Your task to perform on an android device: open app "Messenger Lite" (install if not already installed) Image 0: 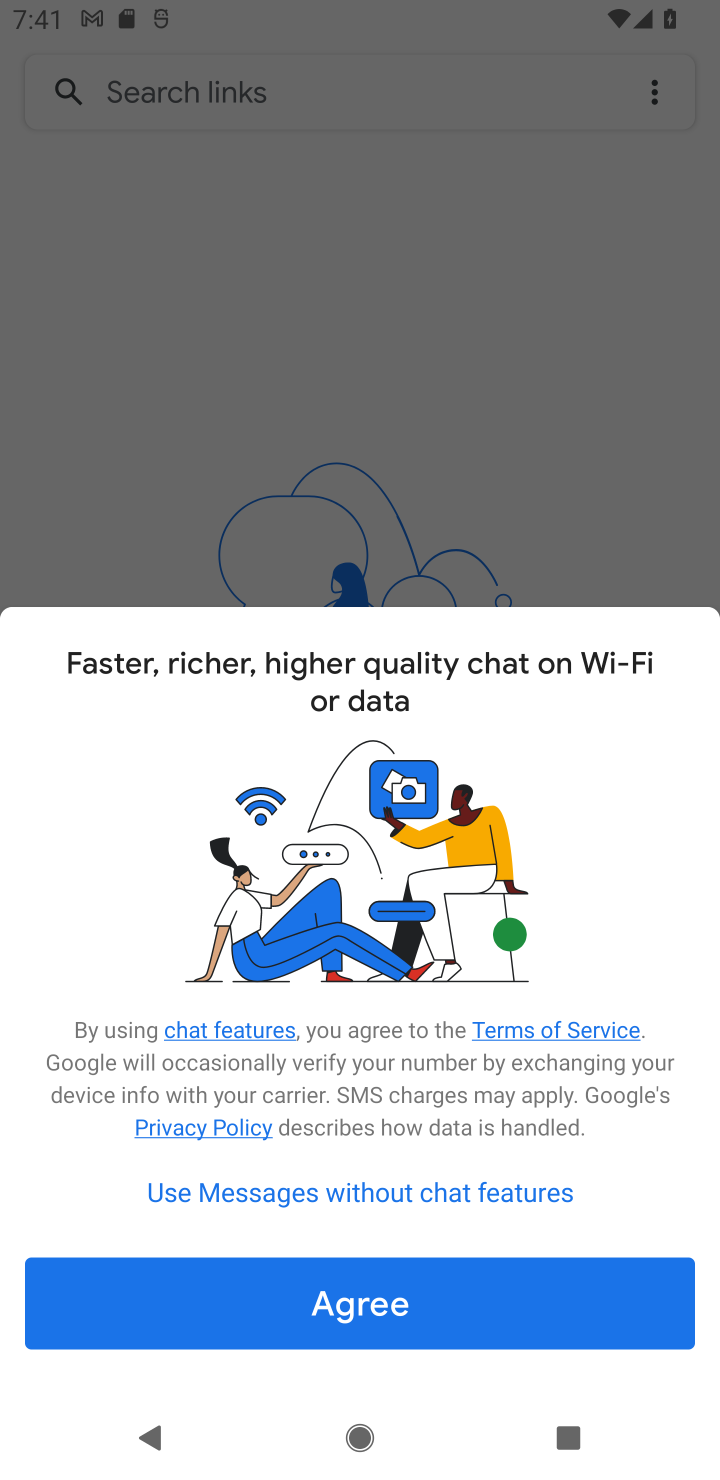
Step 0: press home button
Your task to perform on an android device: open app "Messenger Lite" (install if not already installed) Image 1: 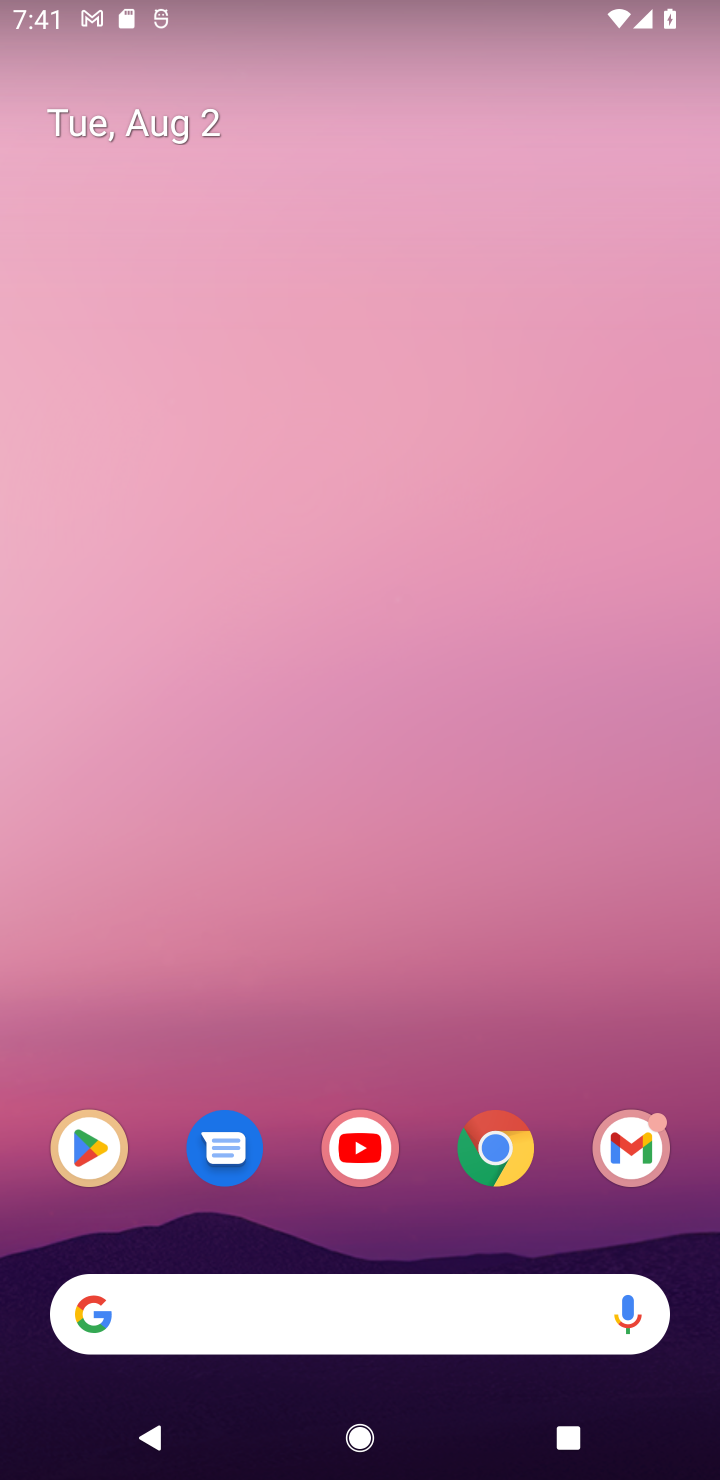
Step 1: drag from (554, 1181) to (333, 177)
Your task to perform on an android device: open app "Messenger Lite" (install if not already installed) Image 2: 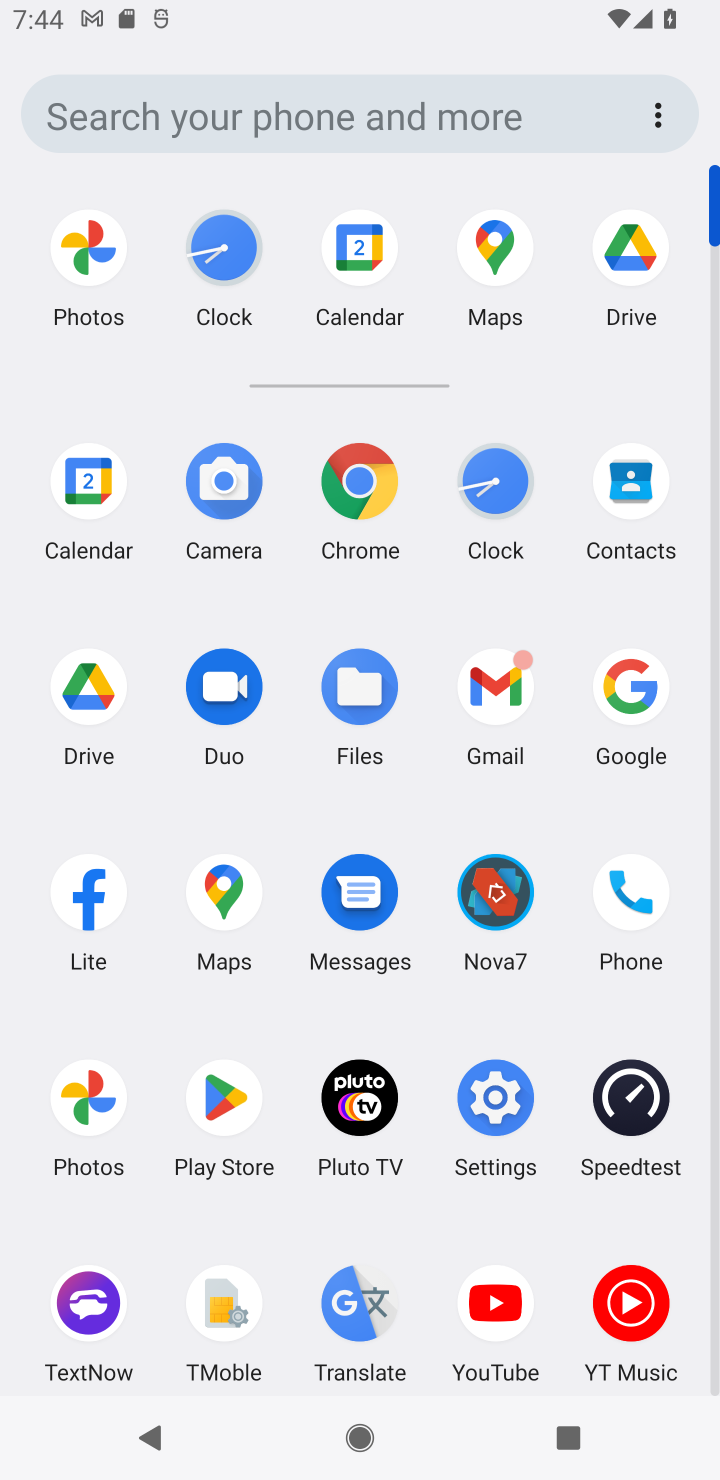
Step 2: click (209, 1130)
Your task to perform on an android device: open app "Messenger Lite" (install if not already installed) Image 3: 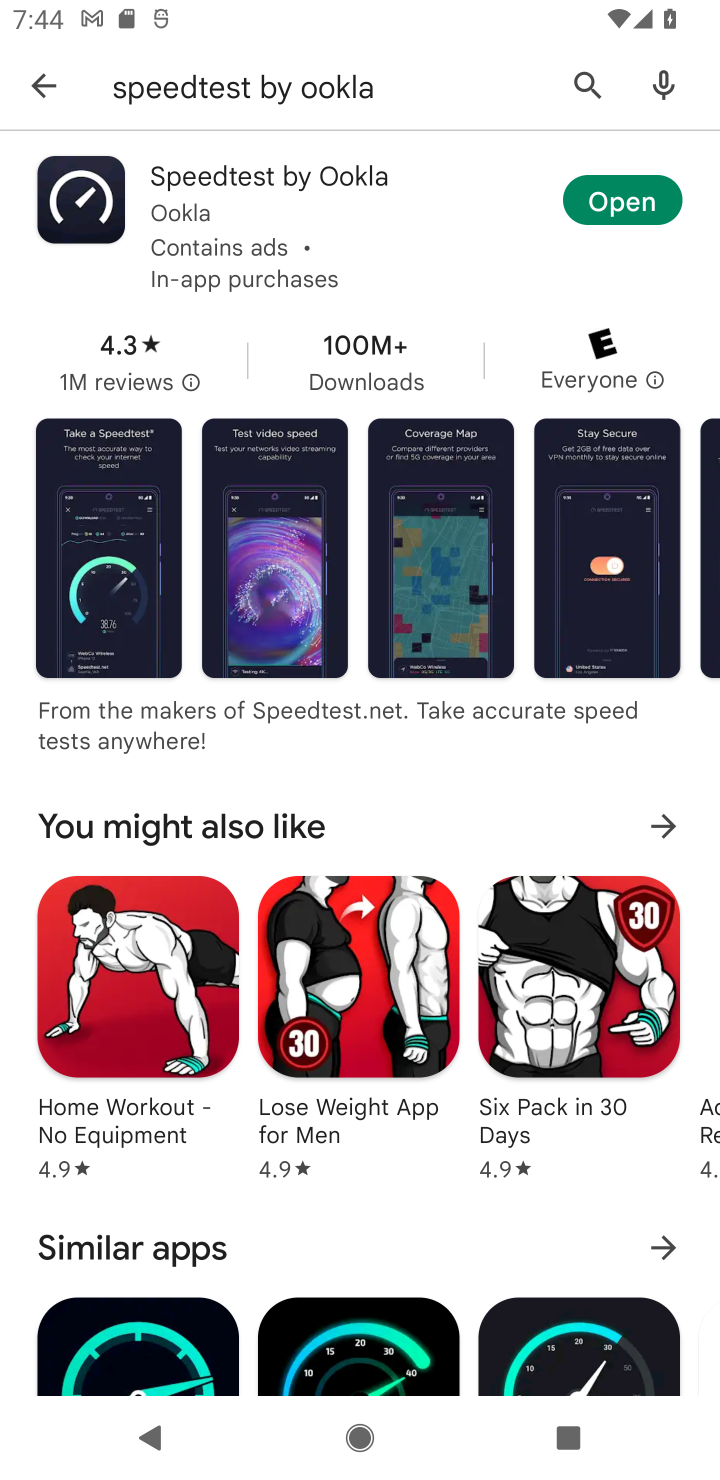
Step 3: press back button
Your task to perform on an android device: open app "Messenger Lite" (install if not already installed) Image 4: 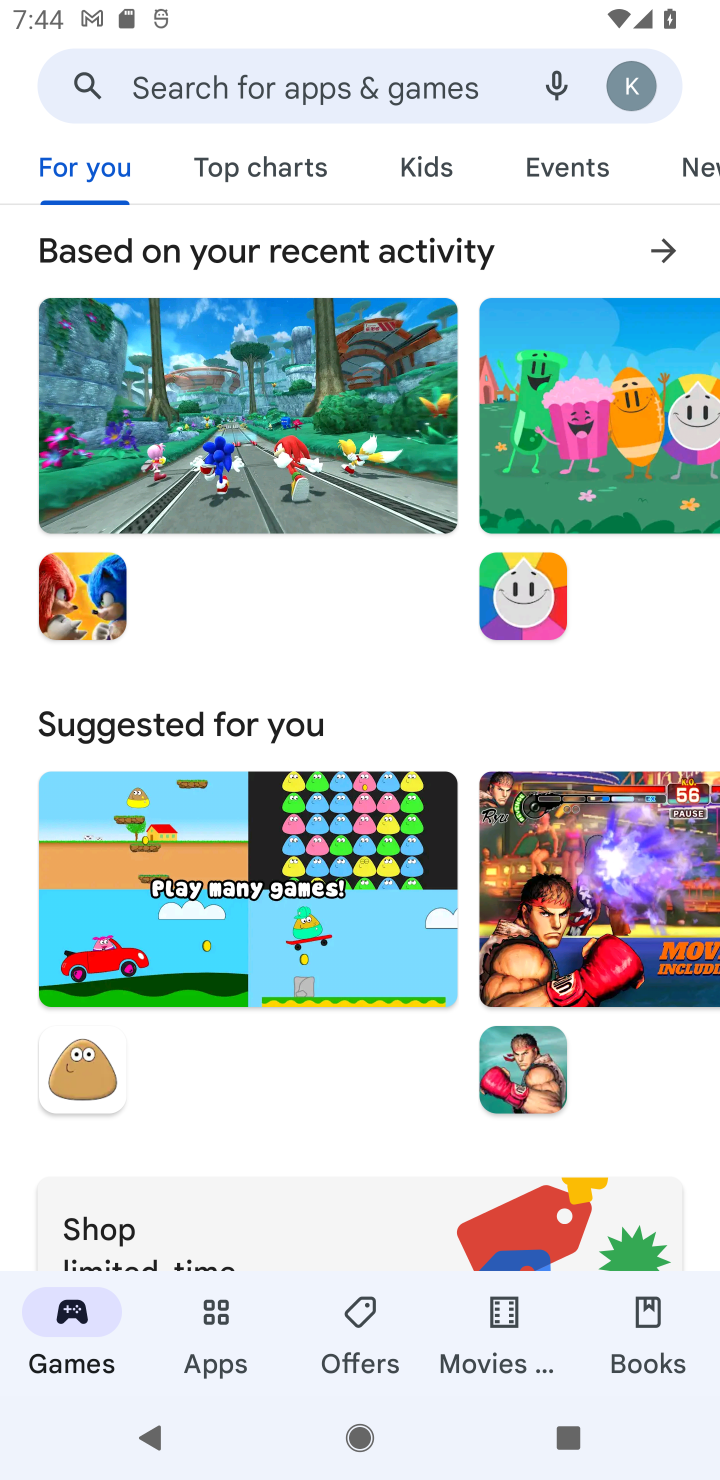
Step 4: click (228, 98)
Your task to perform on an android device: open app "Messenger Lite" (install if not already installed) Image 5: 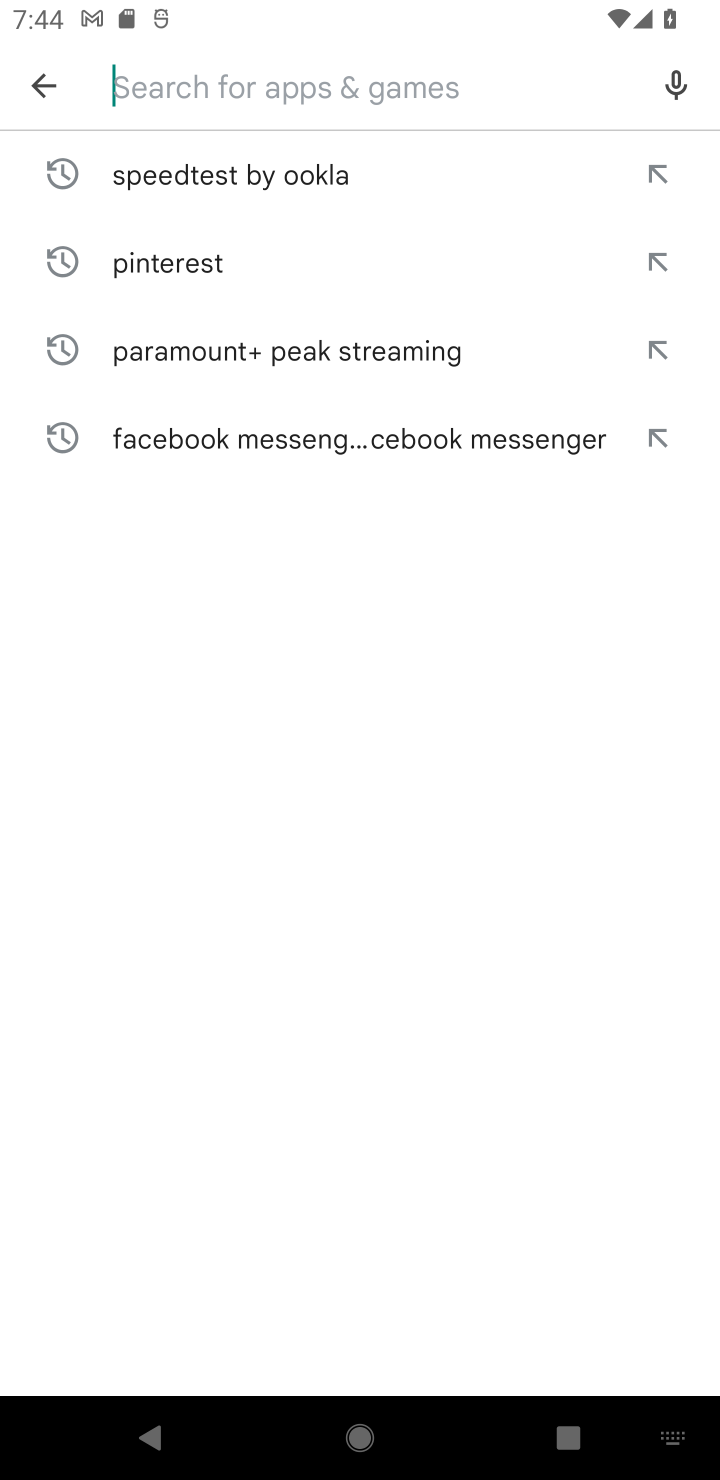
Step 5: type "Messenger Lite"
Your task to perform on an android device: open app "Messenger Lite" (install if not already installed) Image 6: 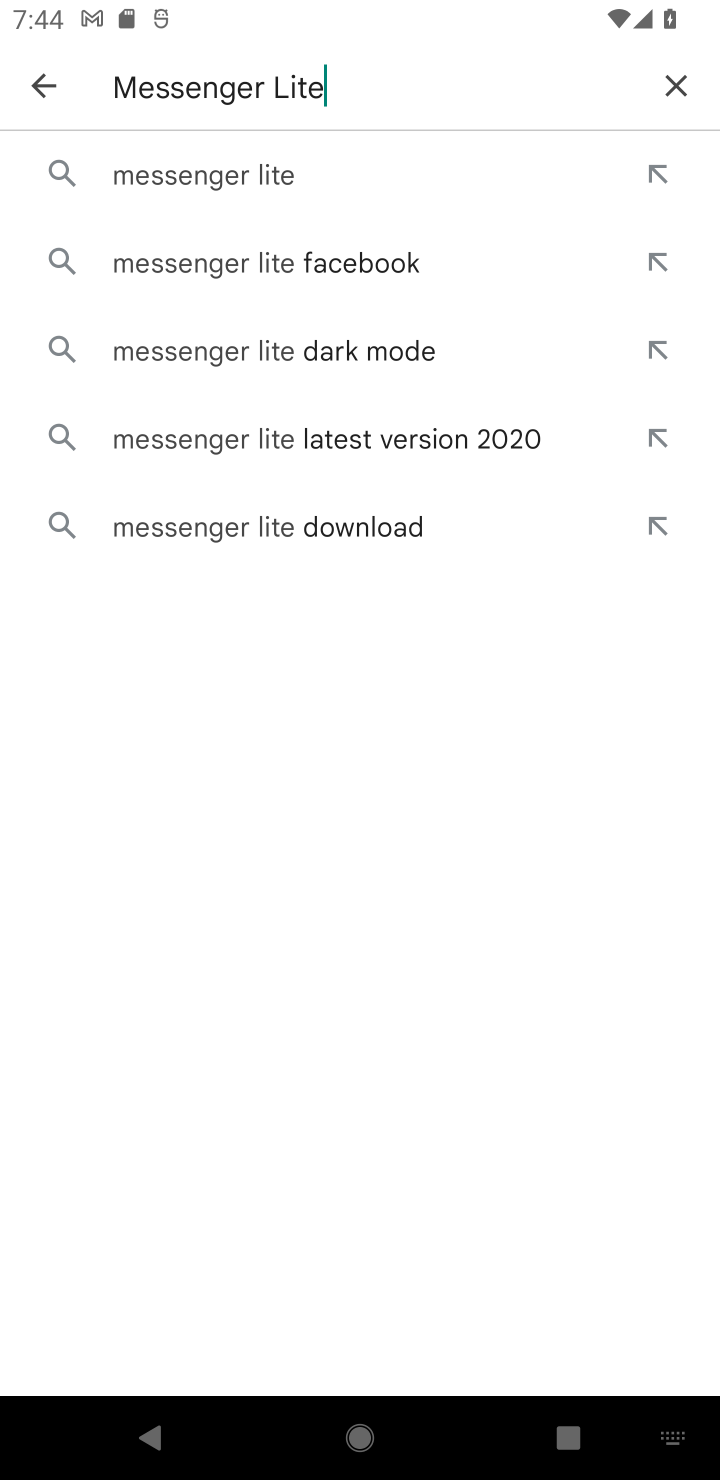
Step 6: click (210, 160)
Your task to perform on an android device: open app "Messenger Lite" (install if not already installed) Image 7: 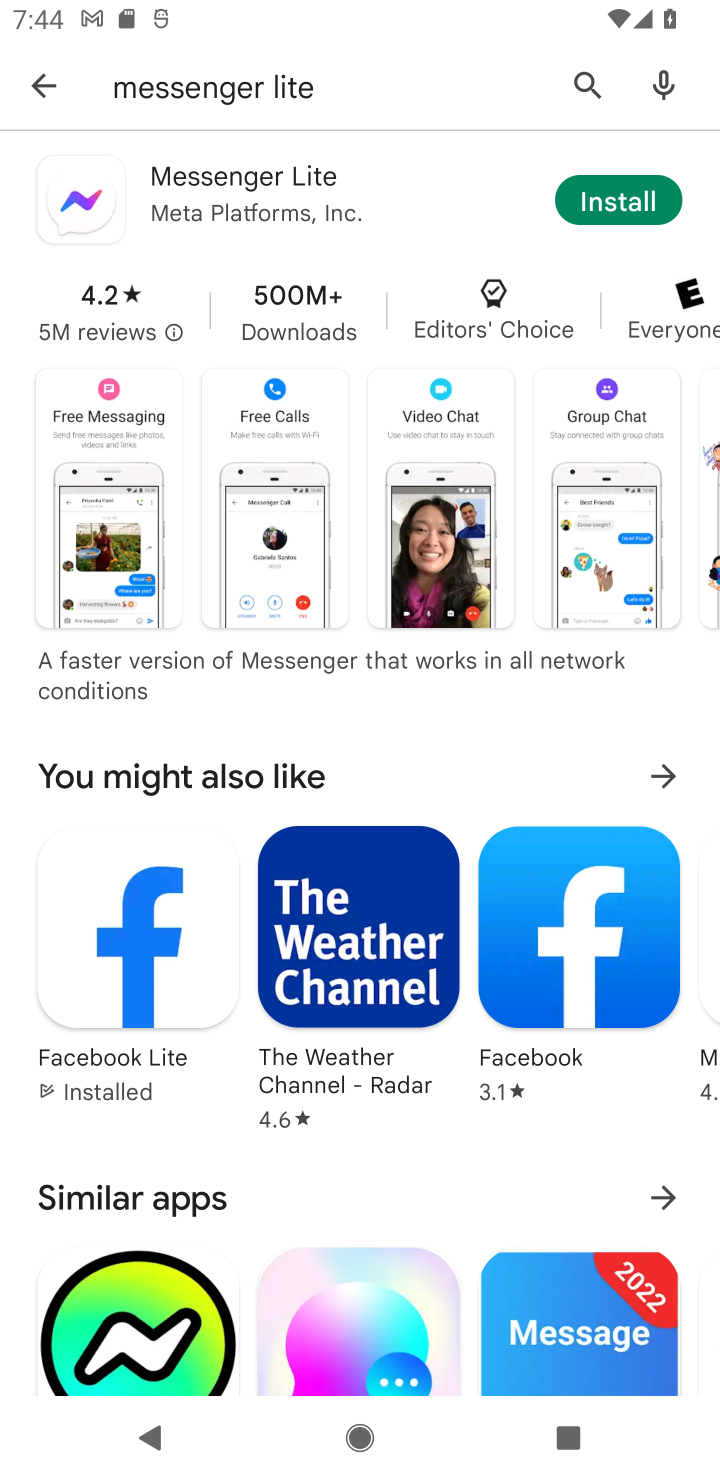
Step 7: task complete